Your task to perform on an android device: check out phone information Image 0: 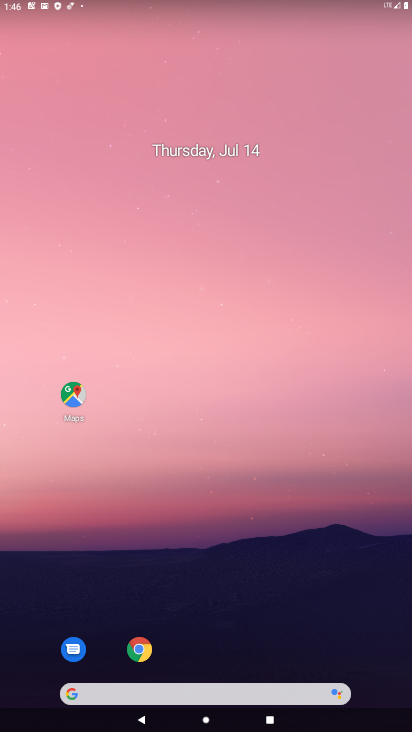
Step 0: drag from (367, 589) to (162, 20)
Your task to perform on an android device: check out phone information Image 1: 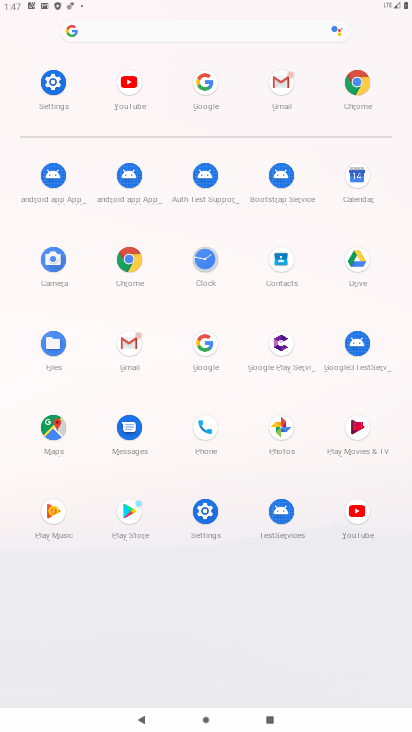
Step 1: click (203, 523)
Your task to perform on an android device: check out phone information Image 2: 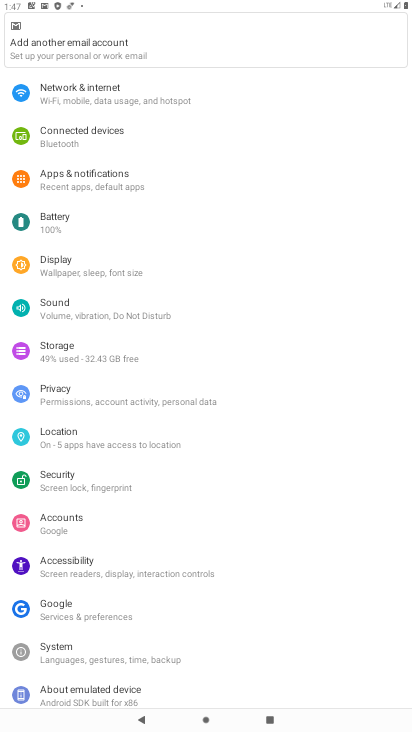
Step 2: task complete